Your task to perform on an android device: add a contact in the contacts app Image 0: 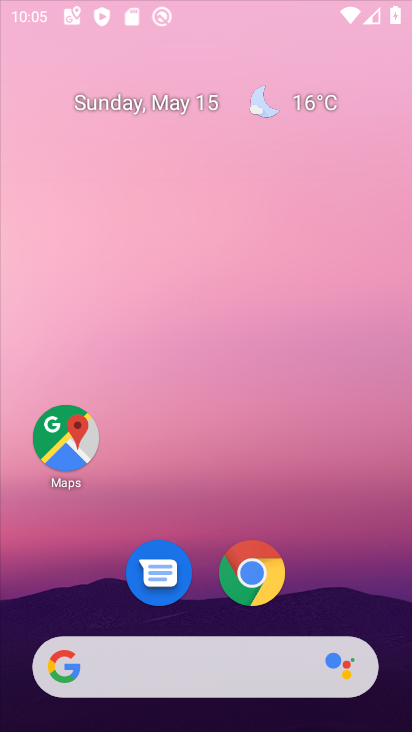
Step 0: press home button
Your task to perform on an android device: add a contact in the contacts app Image 1: 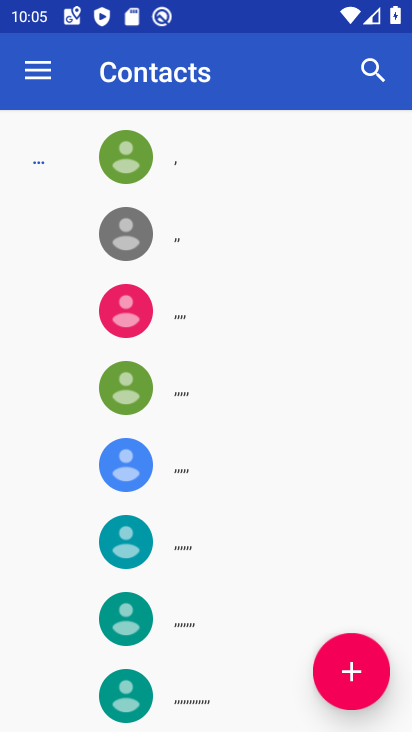
Step 1: press home button
Your task to perform on an android device: add a contact in the contacts app Image 2: 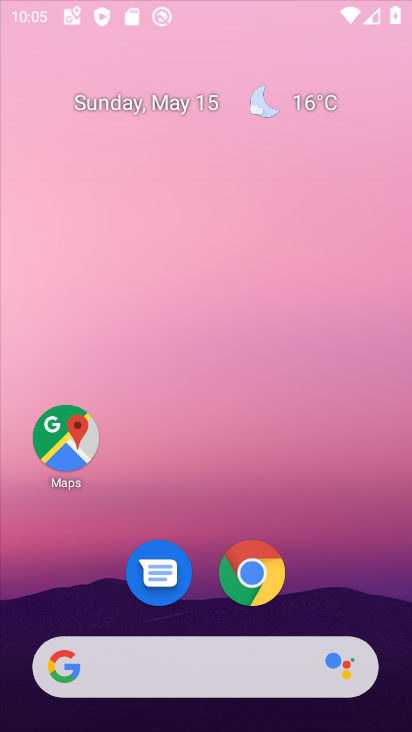
Step 2: press home button
Your task to perform on an android device: add a contact in the contacts app Image 3: 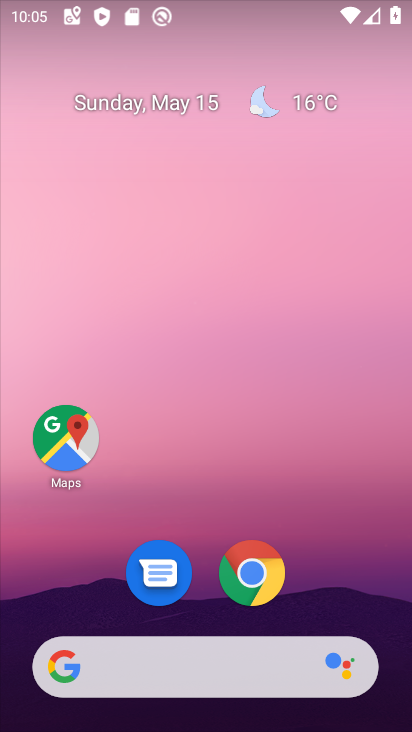
Step 3: drag from (362, 586) to (266, 57)
Your task to perform on an android device: add a contact in the contacts app Image 4: 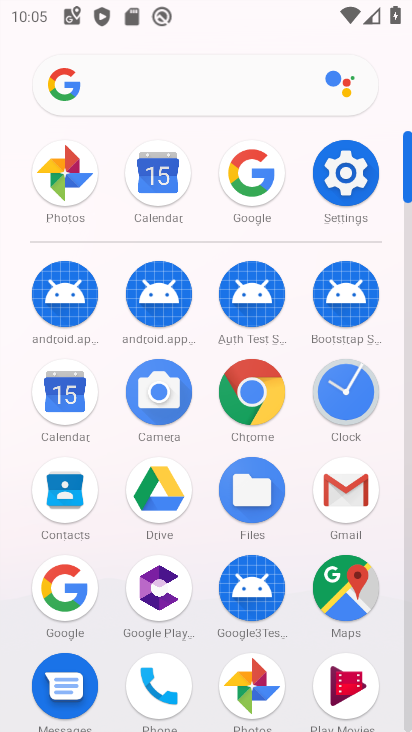
Step 4: click (72, 493)
Your task to perform on an android device: add a contact in the contacts app Image 5: 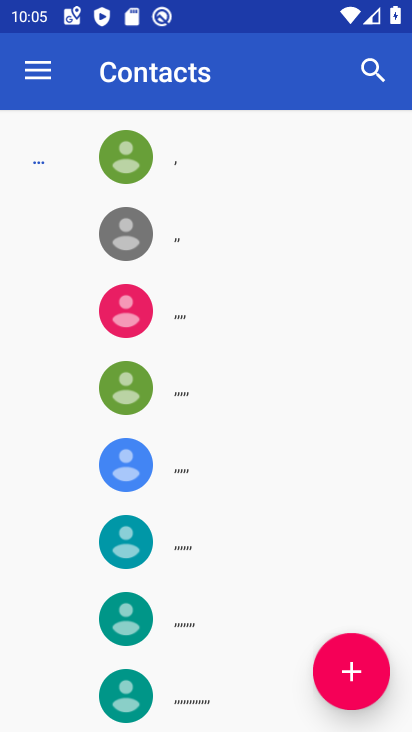
Step 5: click (356, 673)
Your task to perform on an android device: add a contact in the contacts app Image 6: 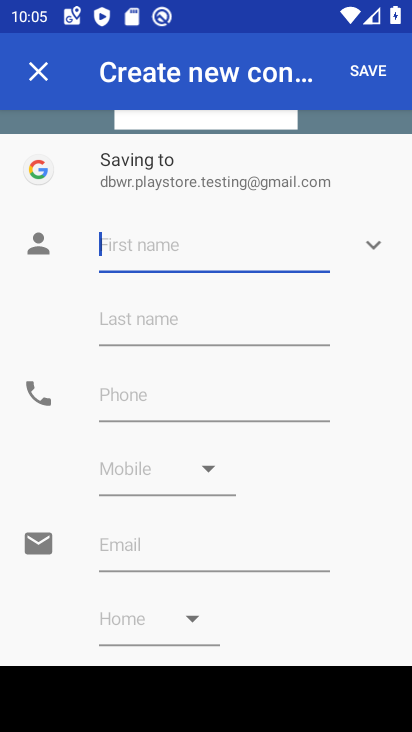
Step 6: type "hhhhhhhh"
Your task to perform on an android device: add a contact in the contacts app Image 7: 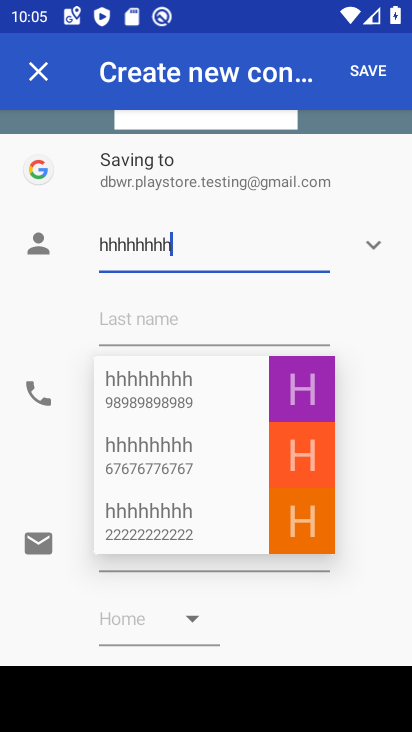
Step 7: click (370, 350)
Your task to perform on an android device: add a contact in the contacts app Image 8: 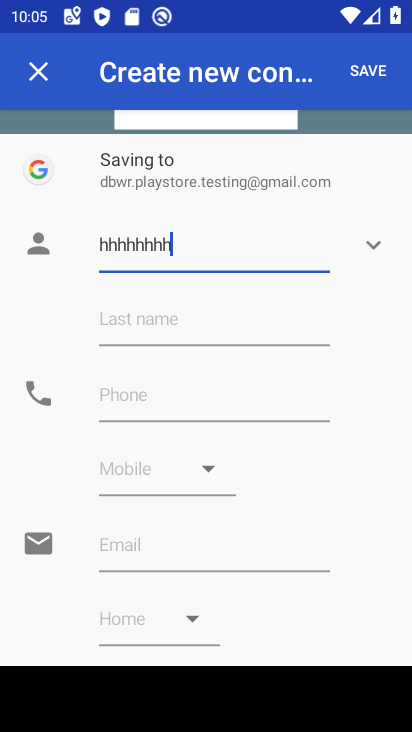
Step 8: click (233, 404)
Your task to perform on an android device: add a contact in the contacts app Image 9: 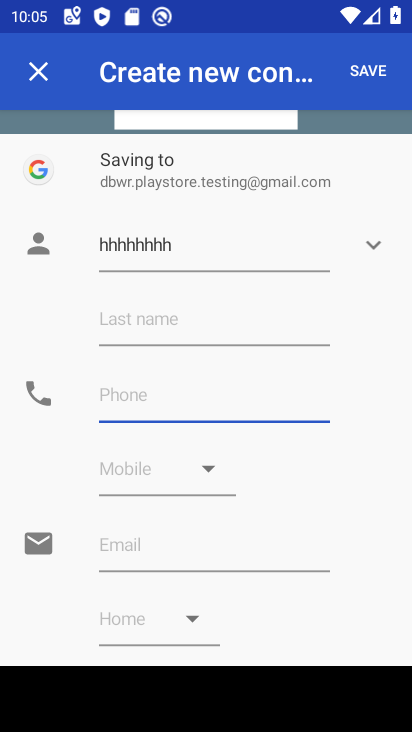
Step 9: click (233, 390)
Your task to perform on an android device: add a contact in the contacts app Image 10: 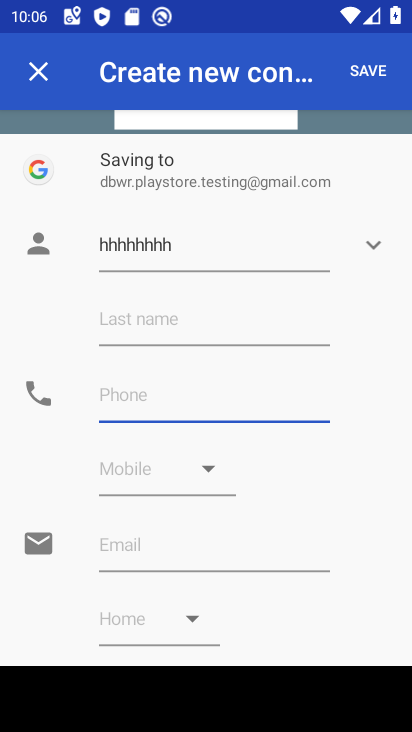
Step 10: type "--0"
Your task to perform on an android device: add a contact in the contacts app Image 11: 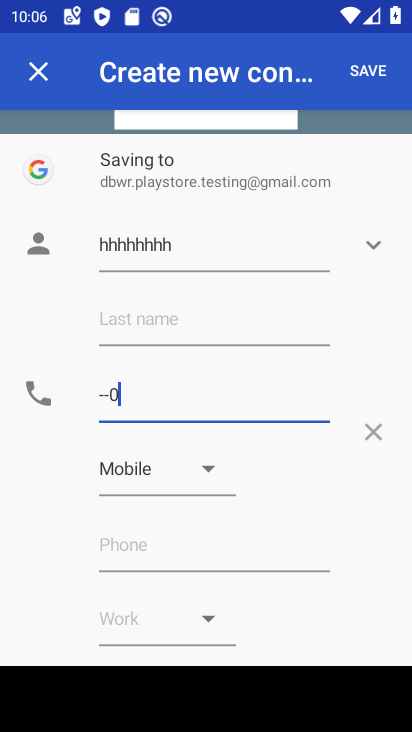
Step 11: click (375, 71)
Your task to perform on an android device: add a contact in the contacts app Image 12: 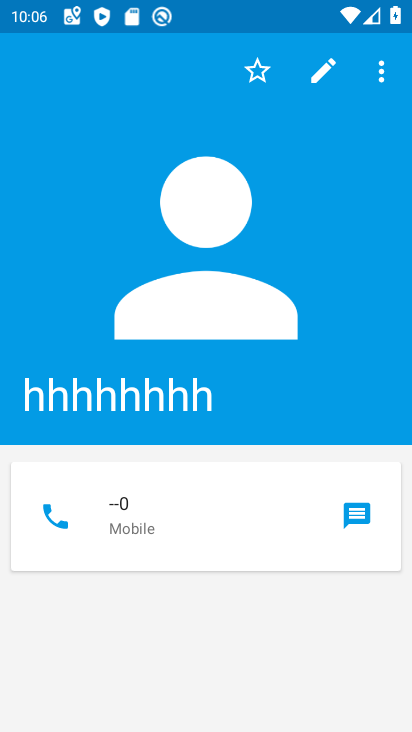
Step 12: task complete